Your task to perform on an android device: turn off sleep mode Image 0: 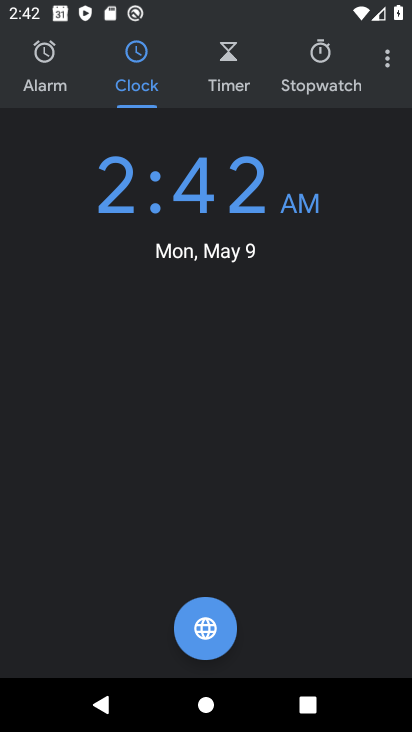
Step 0: press home button
Your task to perform on an android device: turn off sleep mode Image 1: 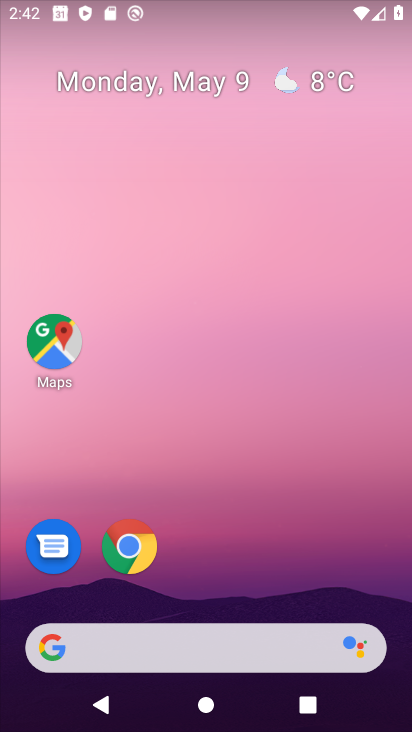
Step 1: drag from (266, 546) to (155, 1)
Your task to perform on an android device: turn off sleep mode Image 2: 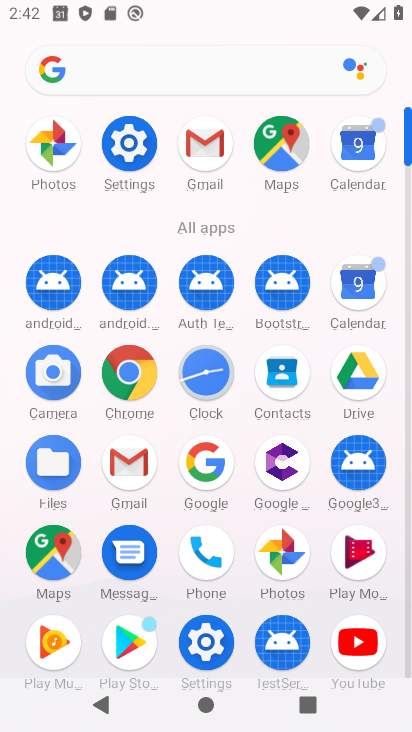
Step 2: click (126, 148)
Your task to perform on an android device: turn off sleep mode Image 3: 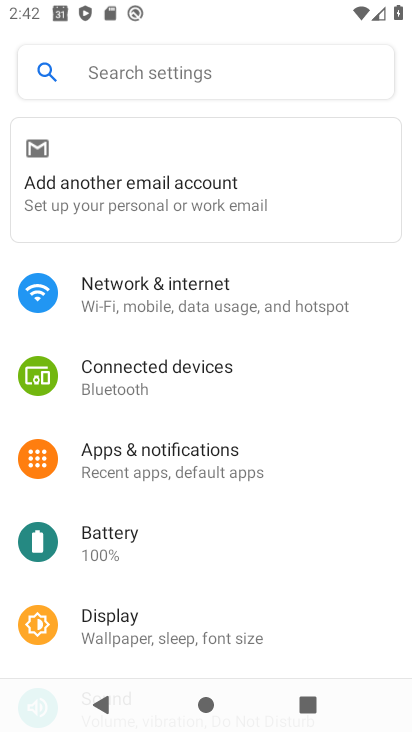
Step 3: click (204, 629)
Your task to perform on an android device: turn off sleep mode Image 4: 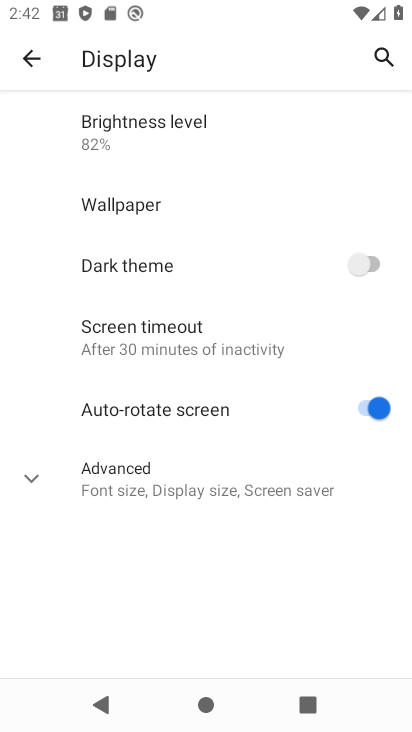
Step 4: click (31, 472)
Your task to perform on an android device: turn off sleep mode Image 5: 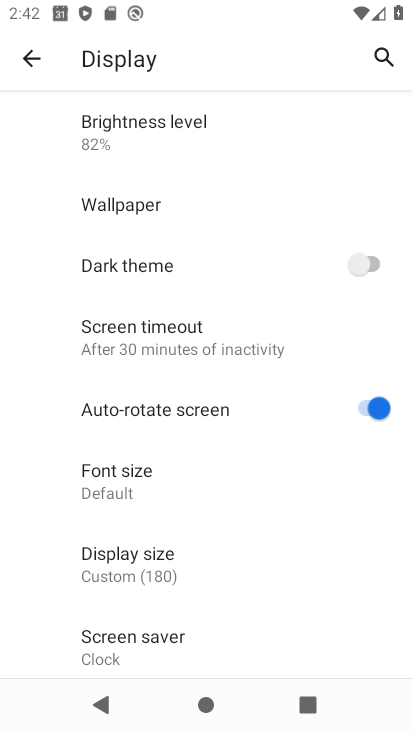
Step 5: task complete